Your task to perform on an android device: Is it going to rain tomorrow? Image 0: 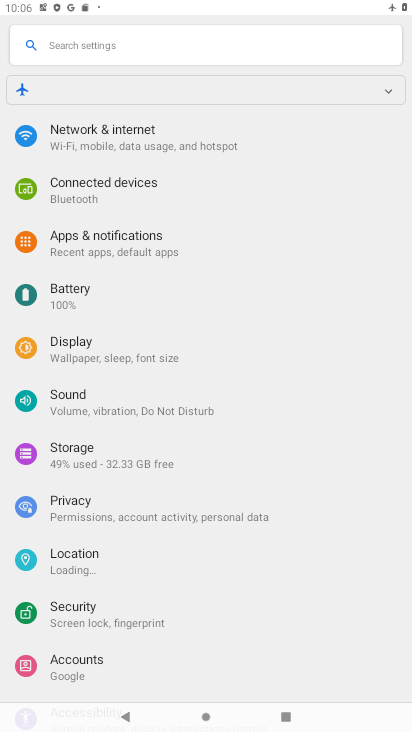
Step 0: press back button
Your task to perform on an android device: Is it going to rain tomorrow? Image 1: 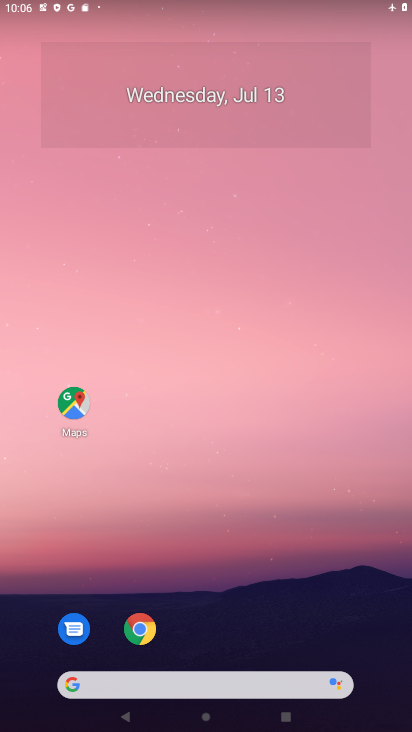
Step 1: drag from (243, 623) to (268, 85)
Your task to perform on an android device: Is it going to rain tomorrow? Image 2: 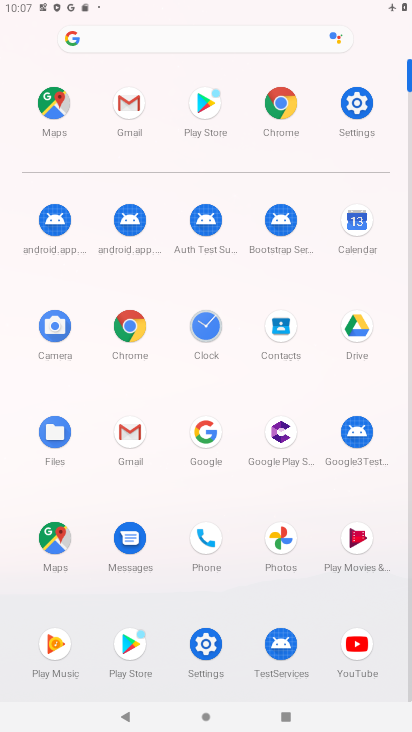
Step 2: click (157, 27)
Your task to perform on an android device: Is it going to rain tomorrow? Image 3: 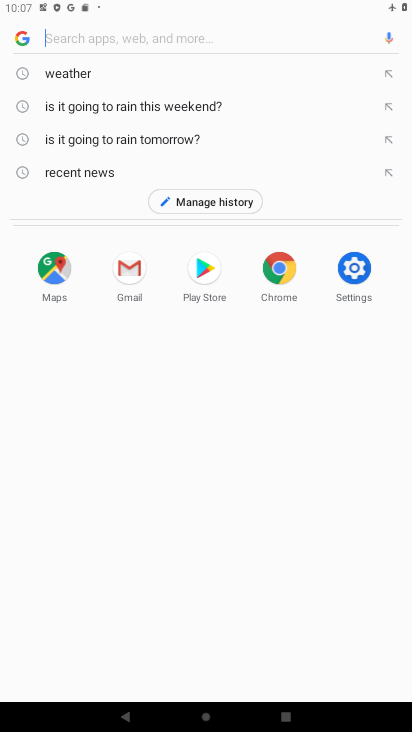
Step 3: type "rain"
Your task to perform on an android device: Is it going to rain tomorrow? Image 4: 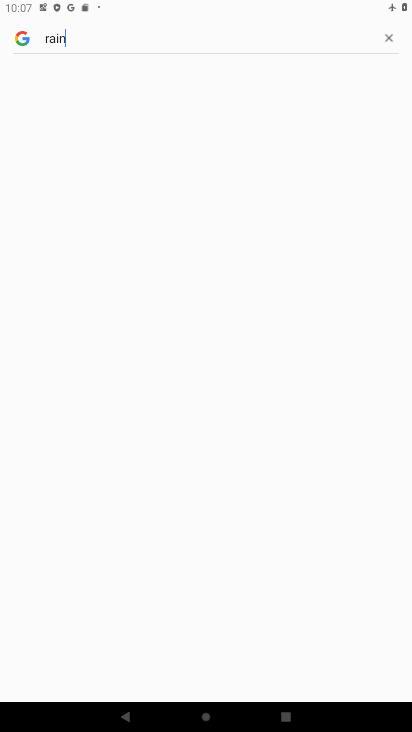
Step 4: task complete